Your task to perform on an android device: Do I have any events this weekend? Image 0: 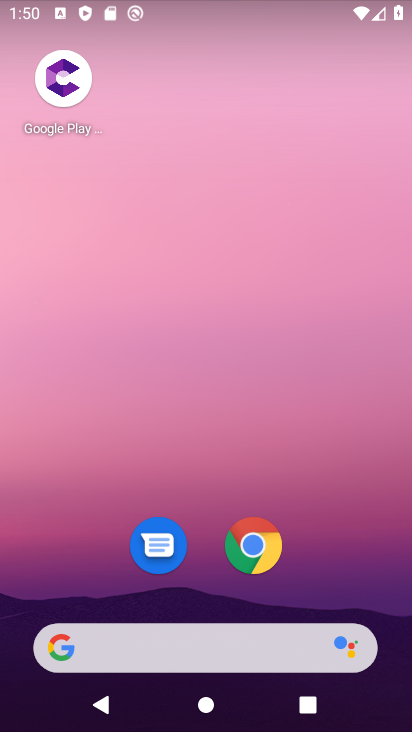
Step 0: drag from (290, 565) to (307, 52)
Your task to perform on an android device: Do I have any events this weekend? Image 1: 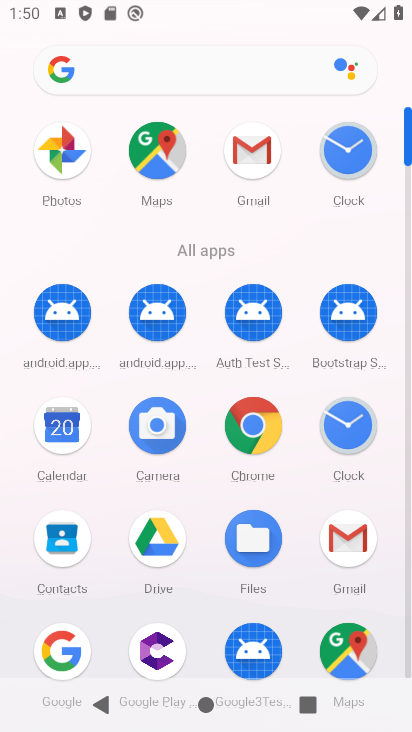
Step 1: click (69, 413)
Your task to perform on an android device: Do I have any events this weekend? Image 2: 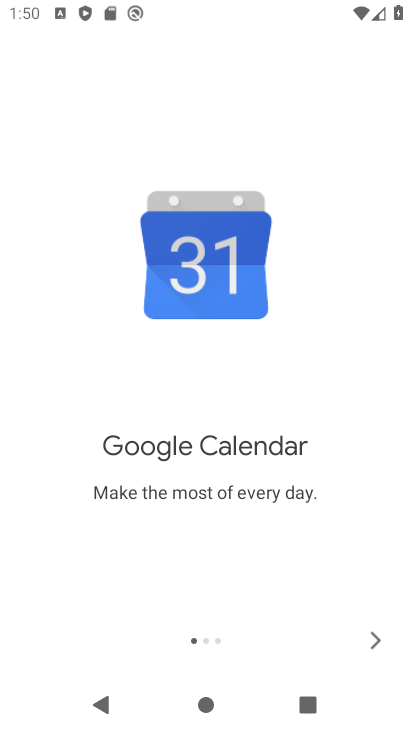
Step 2: click (374, 638)
Your task to perform on an android device: Do I have any events this weekend? Image 3: 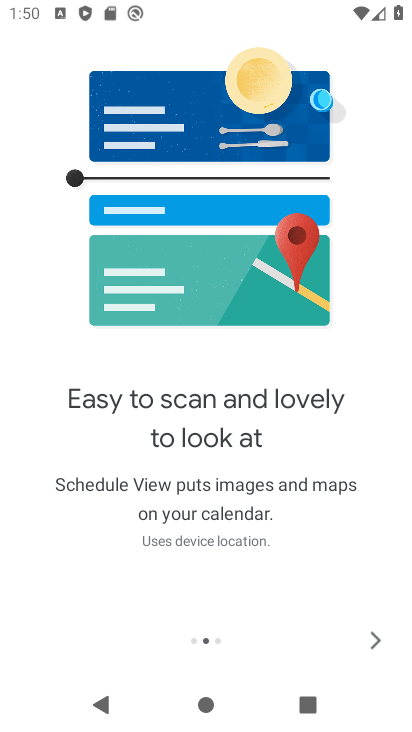
Step 3: click (374, 638)
Your task to perform on an android device: Do I have any events this weekend? Image 4: 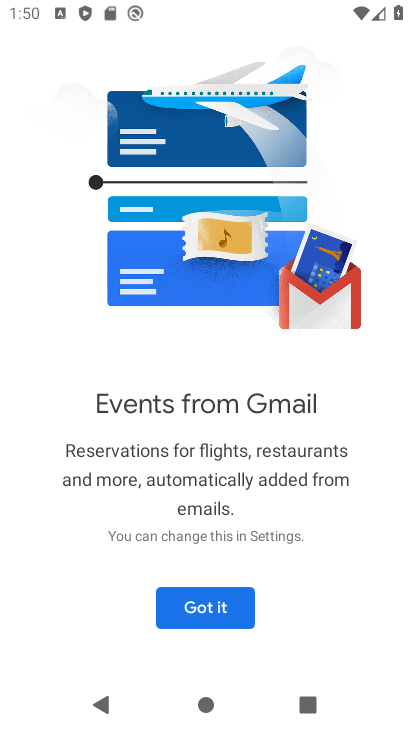
Step 4: click (230, 606)
Your task to perform on an android device: Do I have any events this weekend? Image 5: 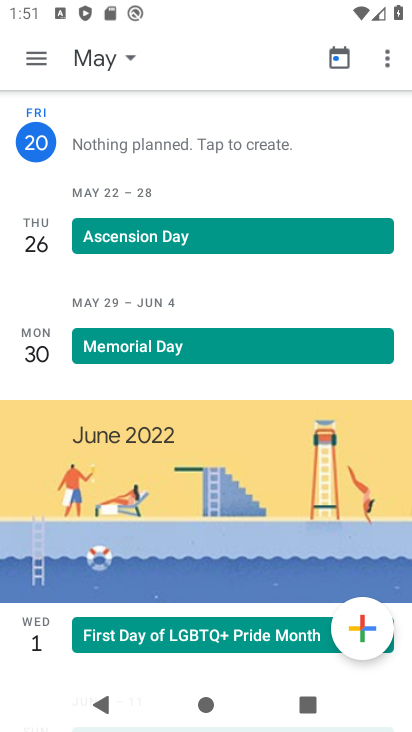
Step 5: click (119, 63)
Your task to perform on an android device: Do I have any events this weekend? Image 6: 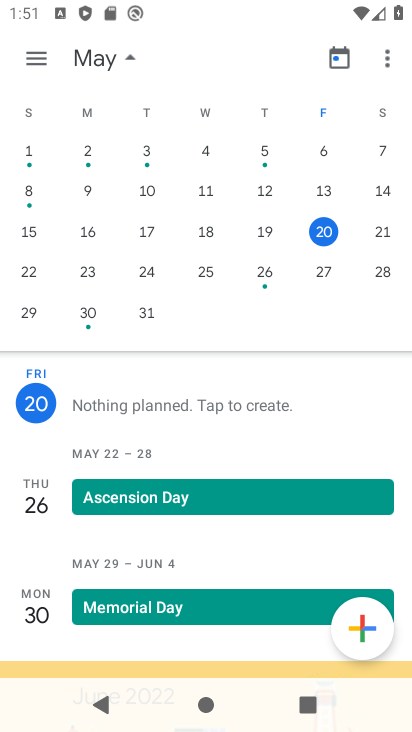
Step 6: click (383, 231)
Your task to perform on an android device: Do I have any events this weekend? Image 7: 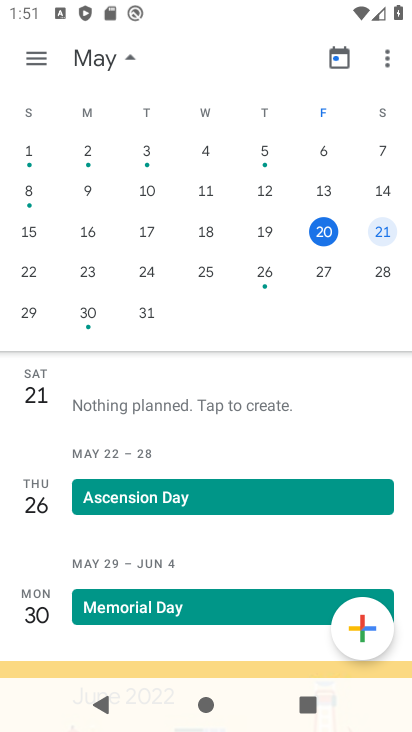
Step 7: task complete